Your task to perform on an android device: find photos in the google photos app Image 0: 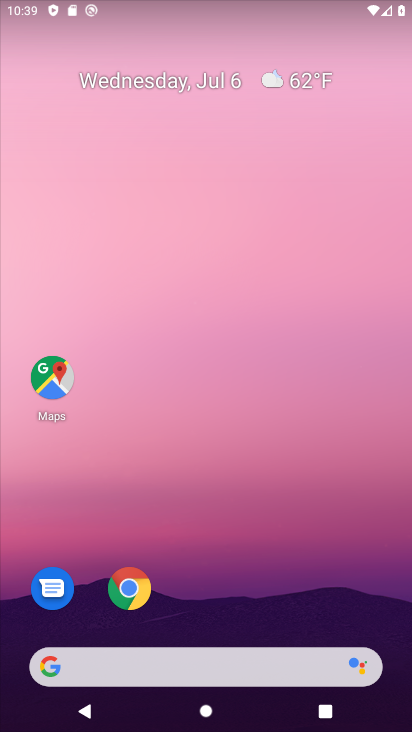
Step 0: drag from (365, 609) to (324, 98)
Your task to perform on an android device: find photos in the google photos app Image 1: 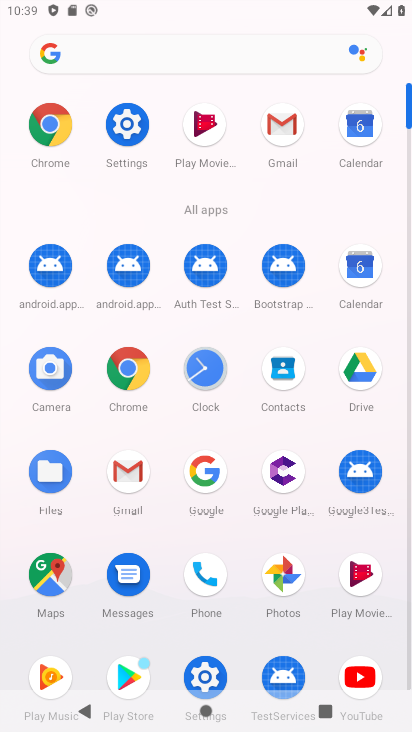
Step 1: click (282, 575)
Your task to perform on an android device: find photos in the google photos app Image 2: 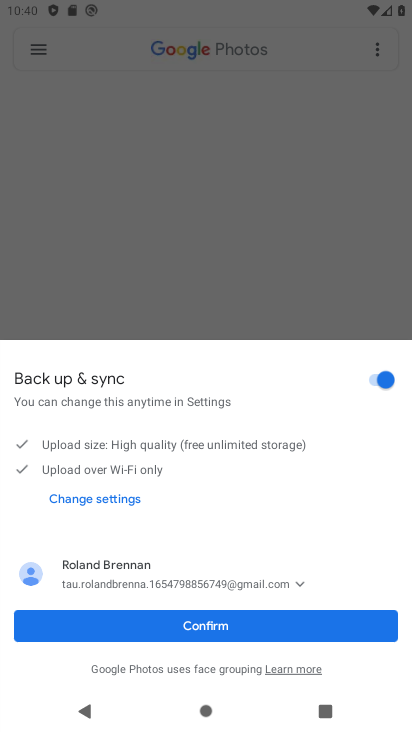
Step 2: click (199, 627)
Your task to perform on an android device: find photos in the google photos app Image 3: 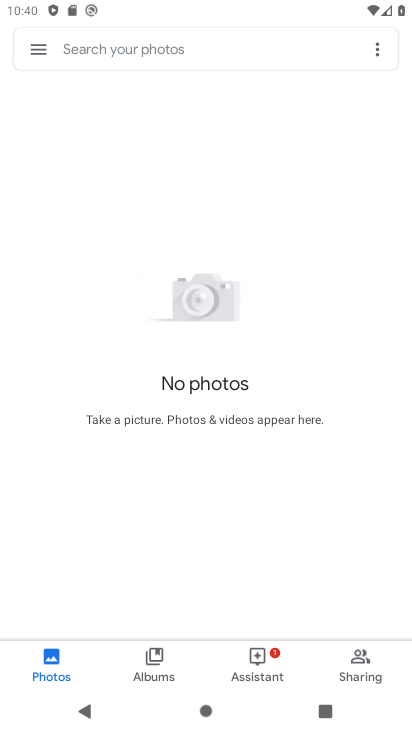
Step 3: task complete